Your task to perform on an android device: set the stopwatch Image 0: 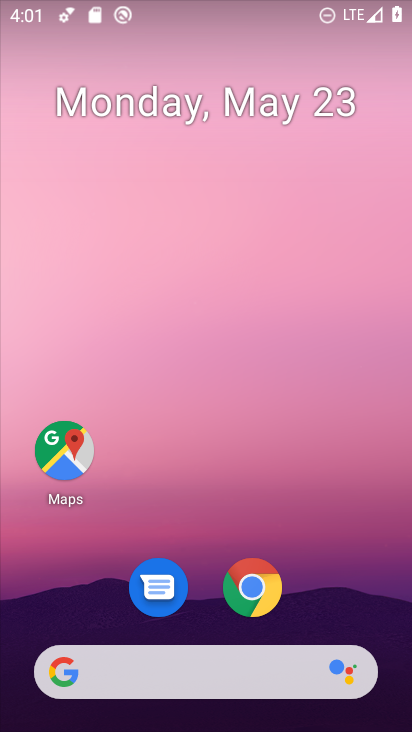
Step 0: drag from (201, 619) to (229, 124)
Your task to perform on an android device: set the stopwatch Image 1: 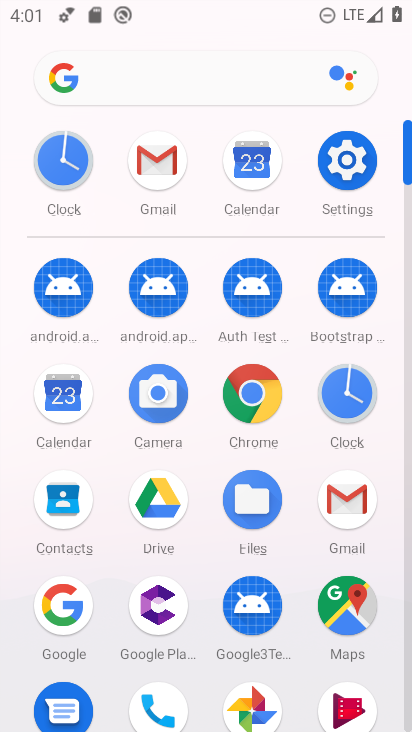
Step 1: click (347, 409)
Your task to perform on an android device: set the stopwatch Image 2: 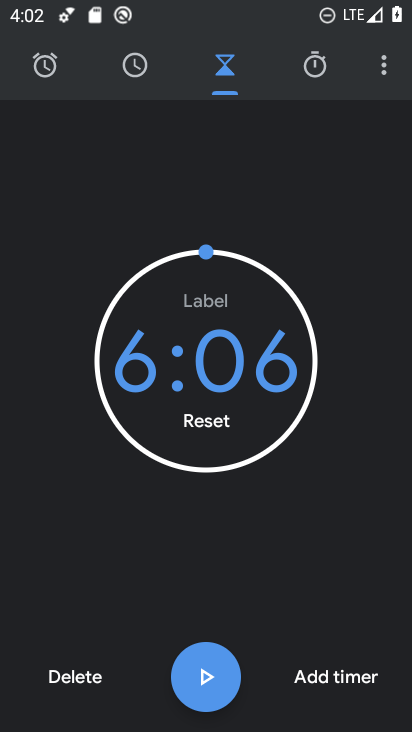
Step 2: click (215, 680)
Your task to perform on an android device: set the stopwatch Image 3: 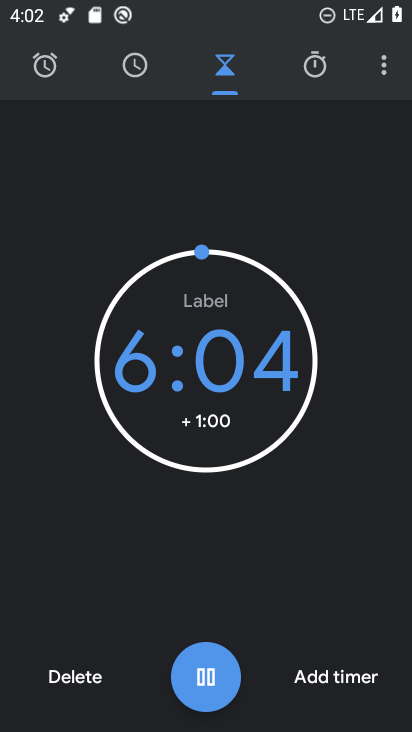
Step 3: click (314, 64)
Your task to perform on an android device: set the stopwatch Image 4: 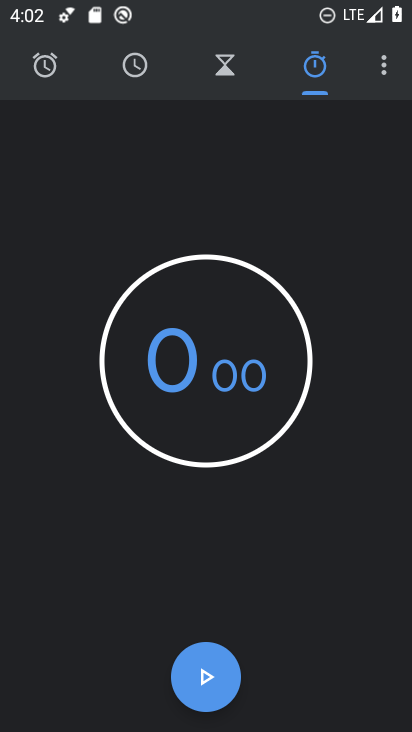
Step 4: click (212, 681)
Your task to perform on an android device: set the stopwatch Image 5: 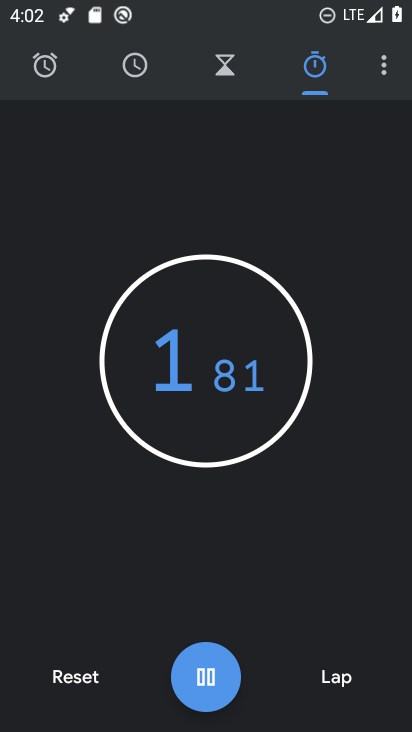
Step 5: task complete